Your task to perform on an android device: Clear the shopping cart on walmart.com. Add "usb-c" to the cart on walmart.com Image 0: 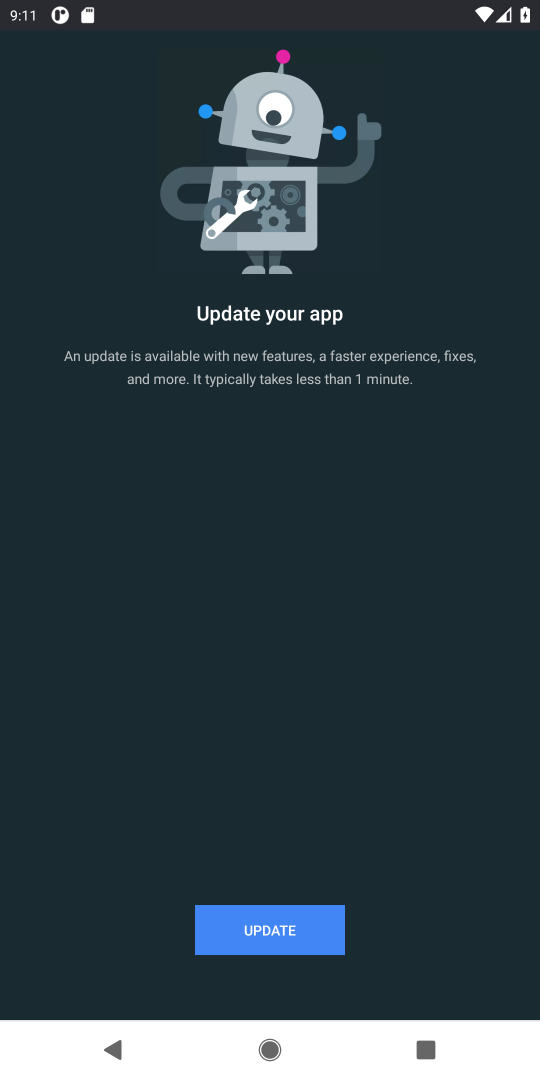
Step 0: press home button
Your task to perform on an android device: Clear the shopping cart on walmart.com. Add "usb-c" to the cart on walmart.com Image 1: 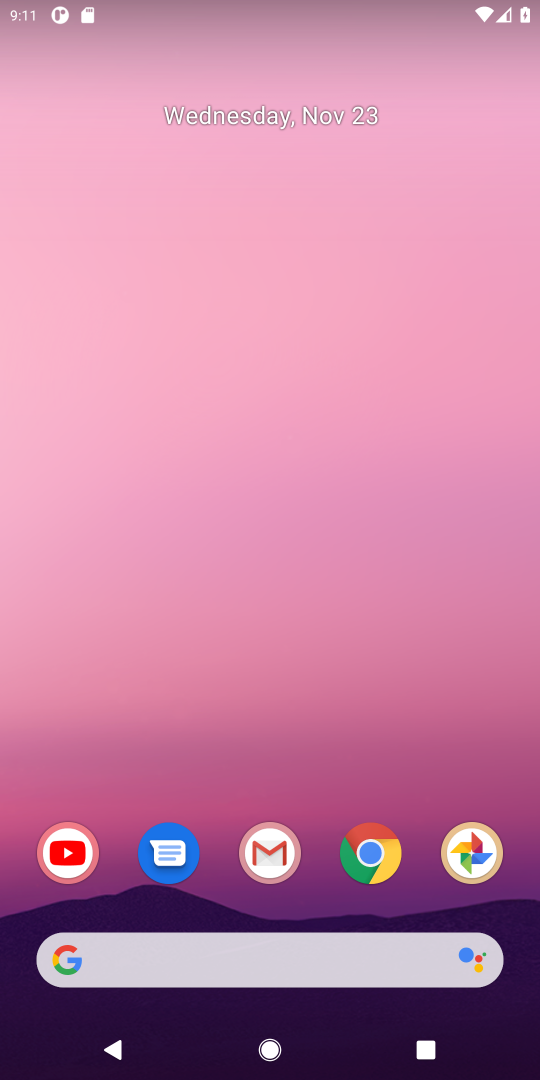
Step 1: click (377, 859)
Your task to perform on an android device: Clear the shopping cart on walmart.com. Add "usb-c" to the cart on walmart.com Image 2: 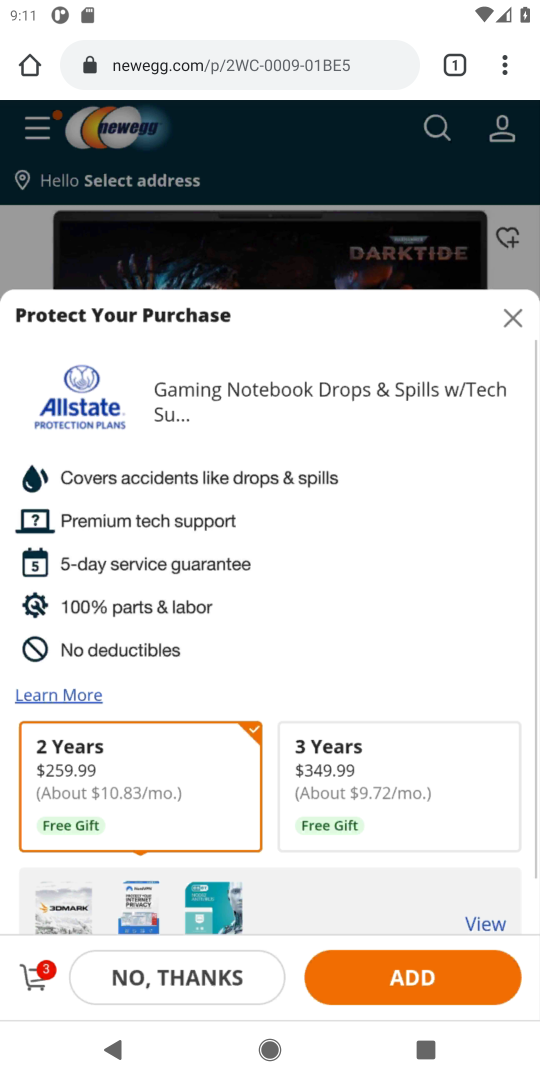
Step 2: click (212, 75)
Your task to perform on an android device: Clear the shopping cart on walmart.com. Add "usb-c" to the cart on walmart.com Image 3: 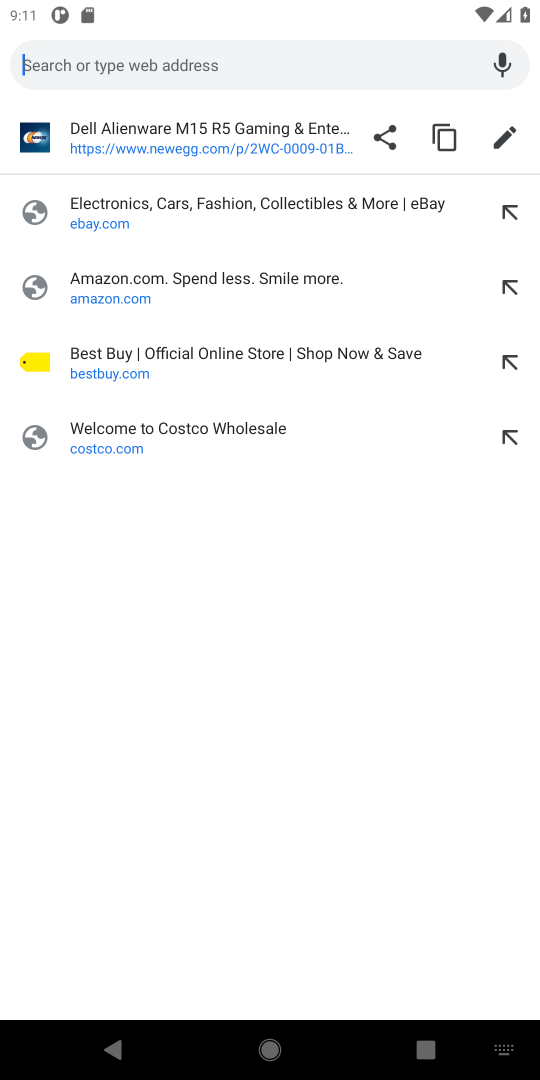
Step 3: type "walmart.com"
Your task to perform on an android device: Clear the shopping cart on walmart.com. Add "usb-c" to the cart on walmart.com Image 4: 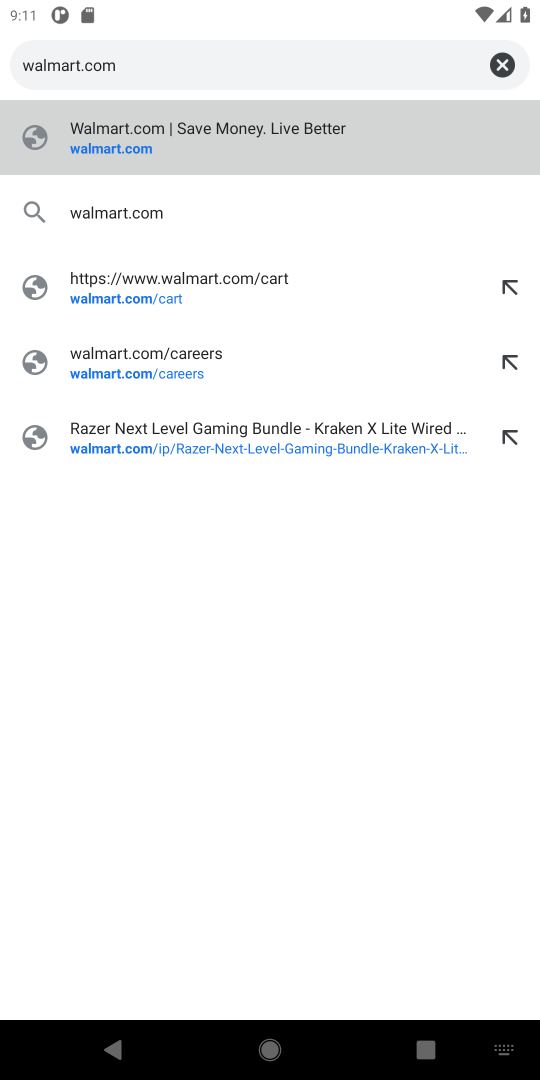
Step 4: click (90, 151)
Your task to perform on an android device: Clear the shopping cart on walmart.com. Add "usb-c" to the cart on walmart.com Image 5: 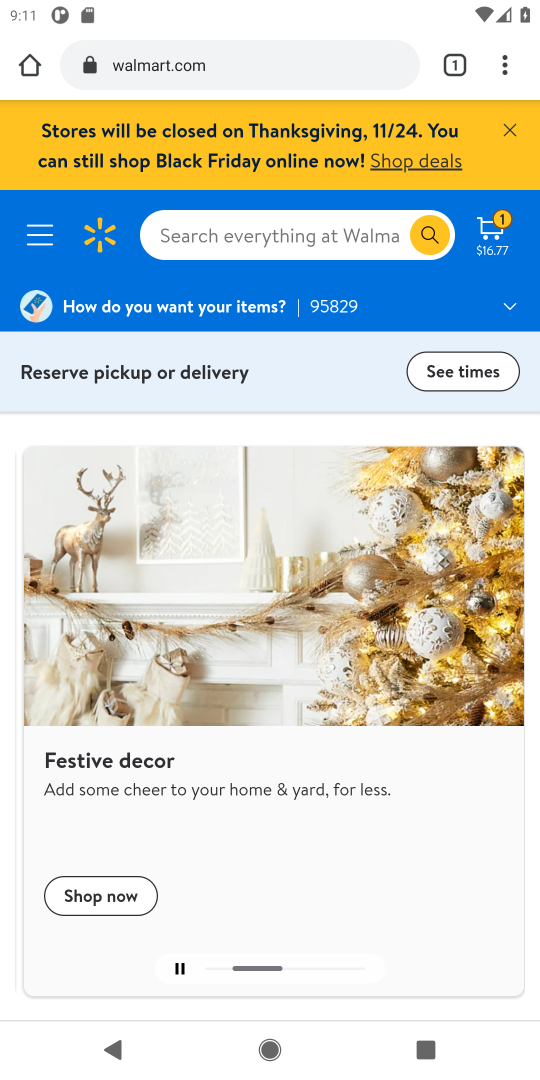
Step 5: click (498, 257)
Your task to perform on an android device: Clear the shopping cart on walmart.com. Add "usb-c" to the cart on walmart.com Image 6: 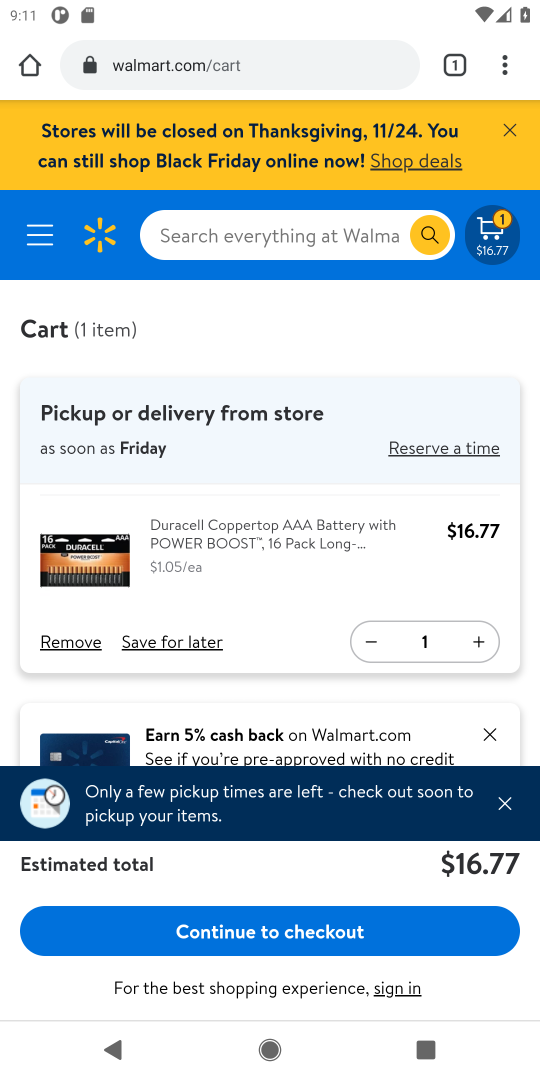
Step 6: drag from (319, 638) to (298, 470)
Your task to perform on an android device: Clear the shopping cart on walmart.com. Add "usb-c" to the cart on walmart.com Image 7: 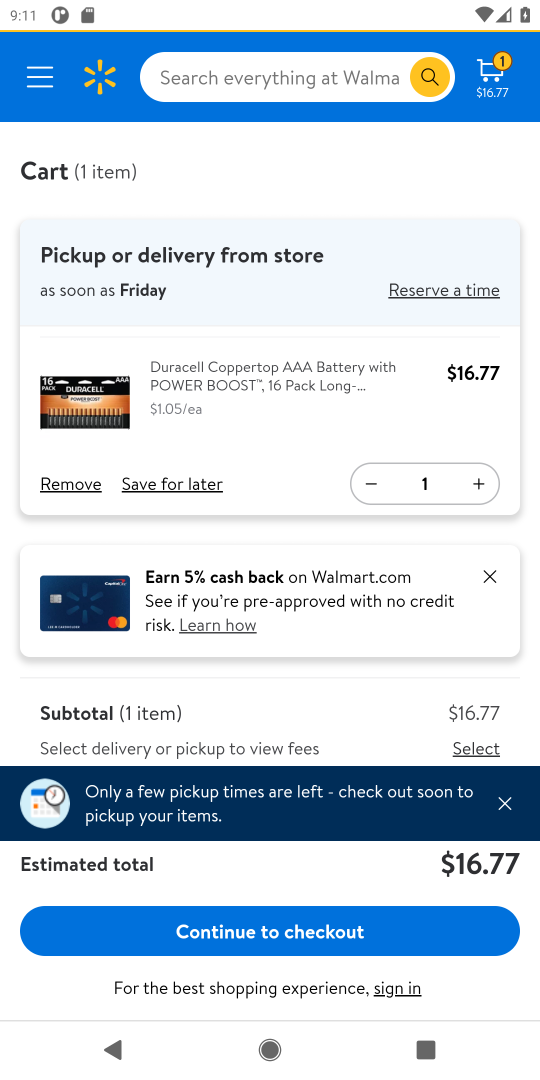
Step 7: click (63, 485)
Your task to perform on an android device: Clear the shopping cart on walmart.com. Add "usb-c" to the cart on walmart.com Image 8: 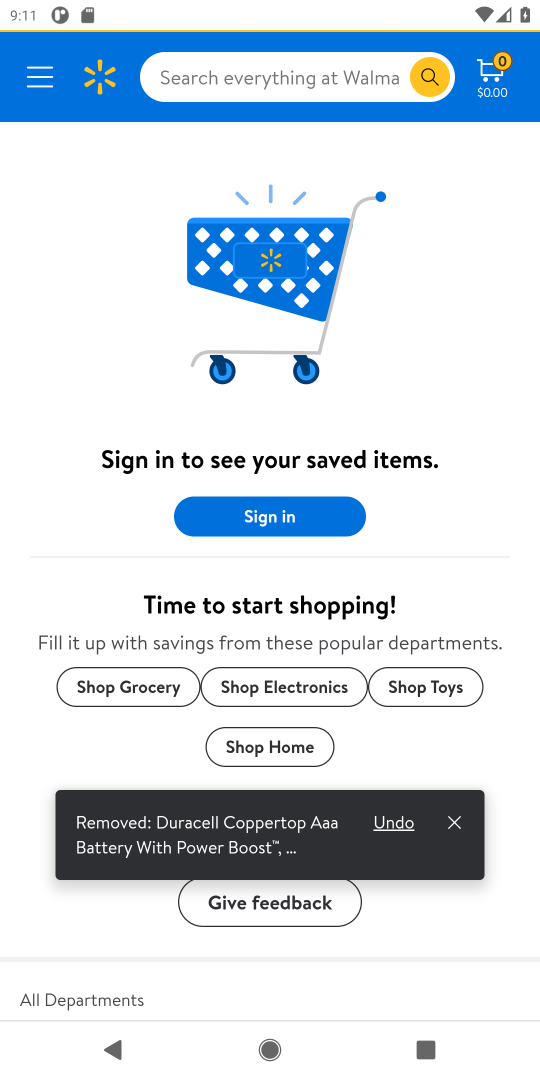
Step 8: drag from (423, 372) to (428, 551)
Your task to perform on an android device: Clear the shopping cart on walmart.com. Add "usb-c" to the cart on walmart.com Image 9: 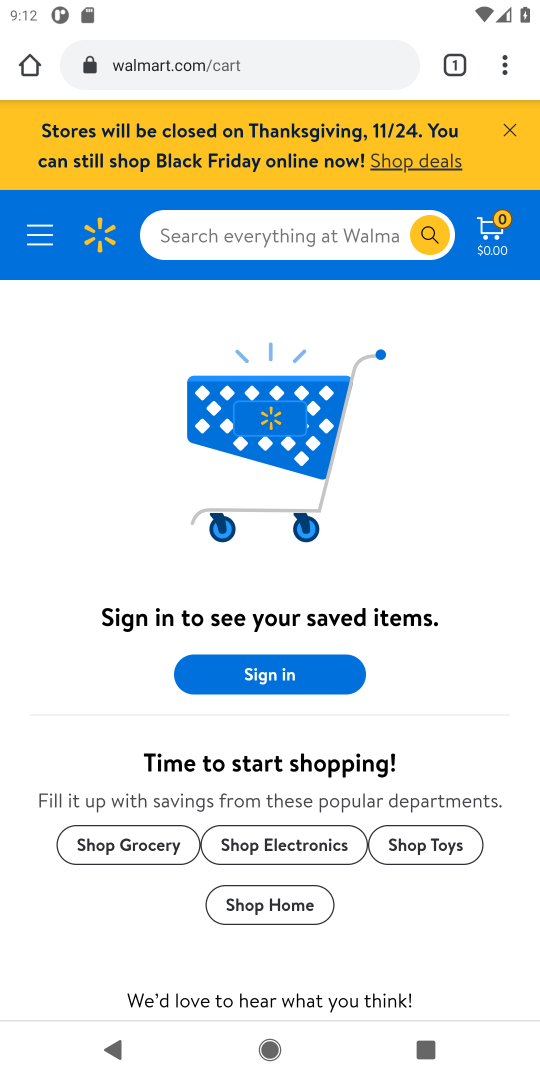
Step 9: click (218, 243)
Your task to perform on an android device: Clear the shopping cart on walmart.com. Add "usb-c" to the cart on walmart.com Image 10: 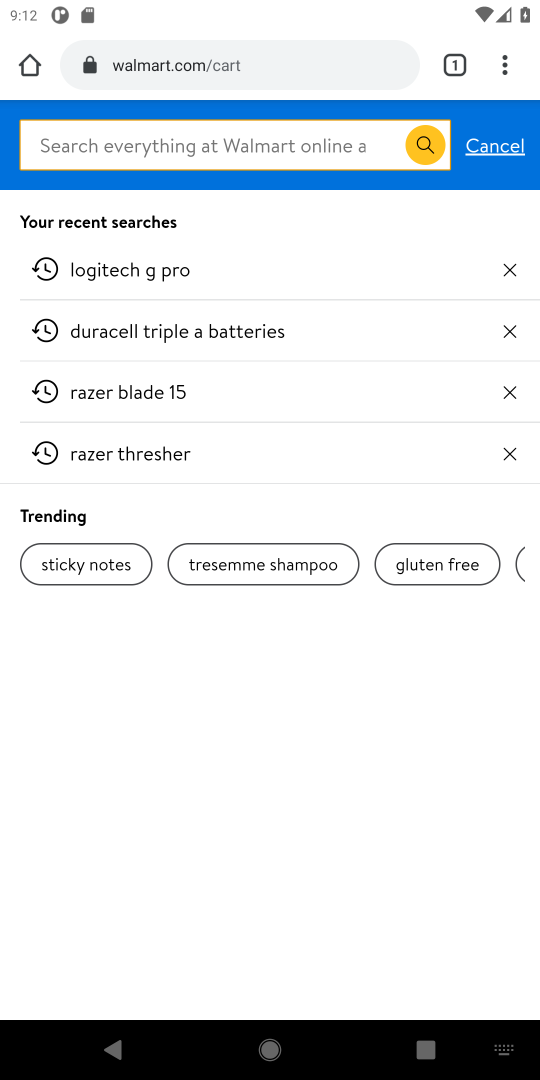
Step 10: type "usb-c"
Your task to perform on an android device: Clear the shopping cart on walmart.com. Add "usb-c" to the cart on walmart.com Image 11: 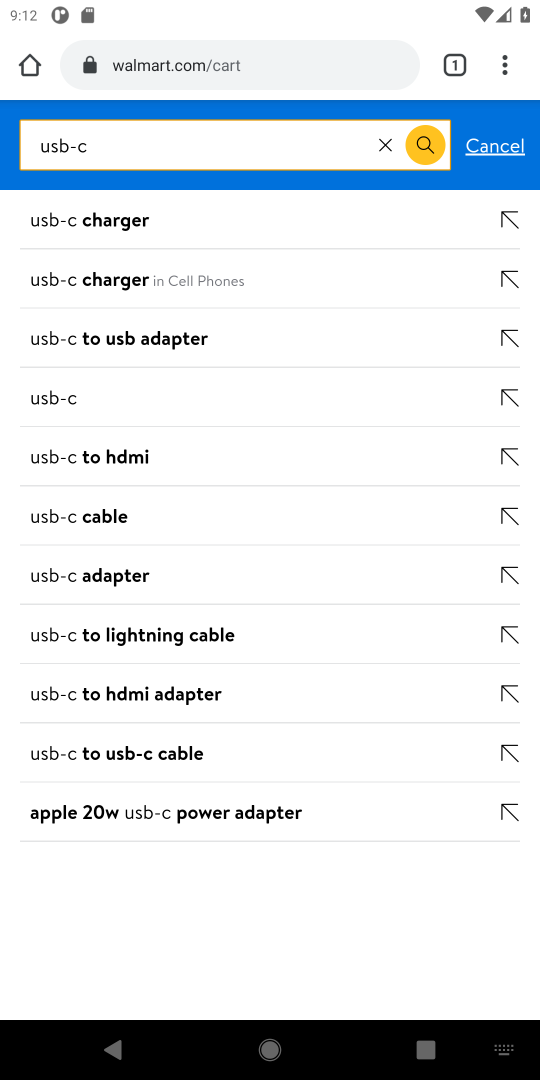
Step 11: click (71, 220)
Your task to perform on an android device: Clear the shopping cart on walmart.com. Add "usb-c" to the cart on walmart.com Image 12: 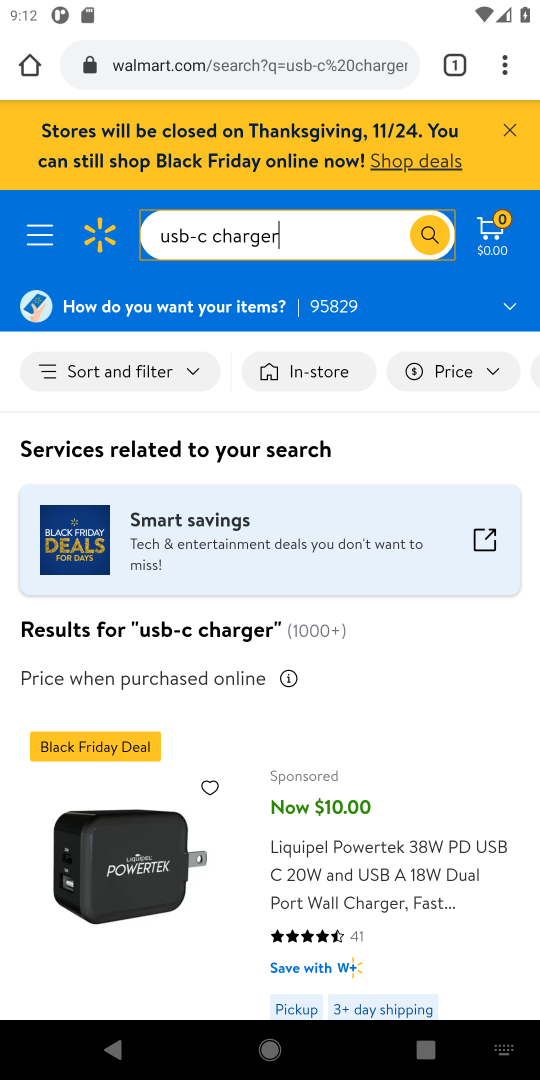
Step 12: drag from (238, 689) to (219, 480)
Your task to perform on an android device: Clear the shopping cart on walmart.com. Add "usb-c" to the cart on walmart.com Image 13: 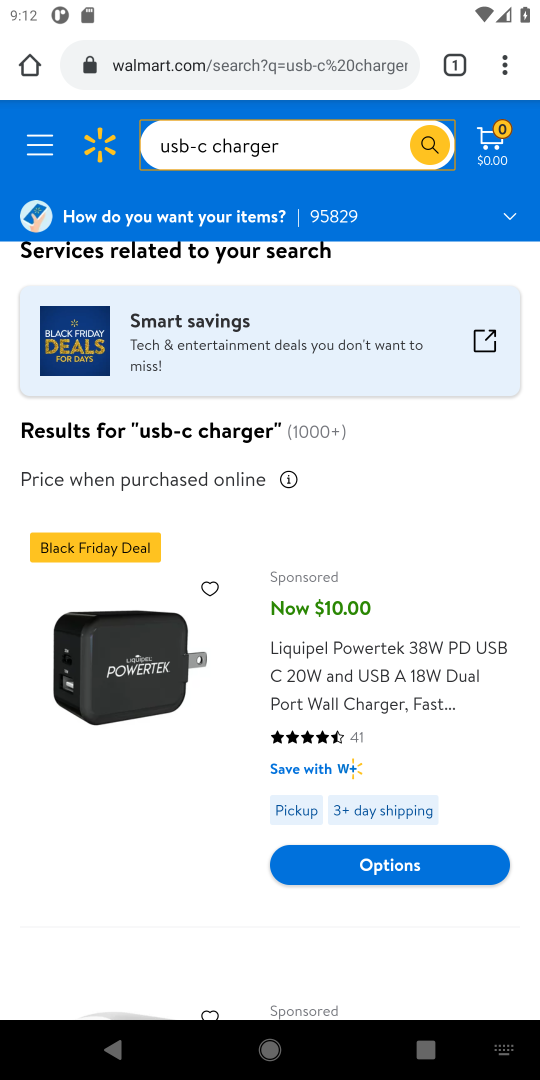
Step 13: drag from (214, 710) to (201, 582)
Your task to perform on an android device: Clear the shopping cart on walmart.com. Add "usb-c" to the cart on walmart.com Image 14: 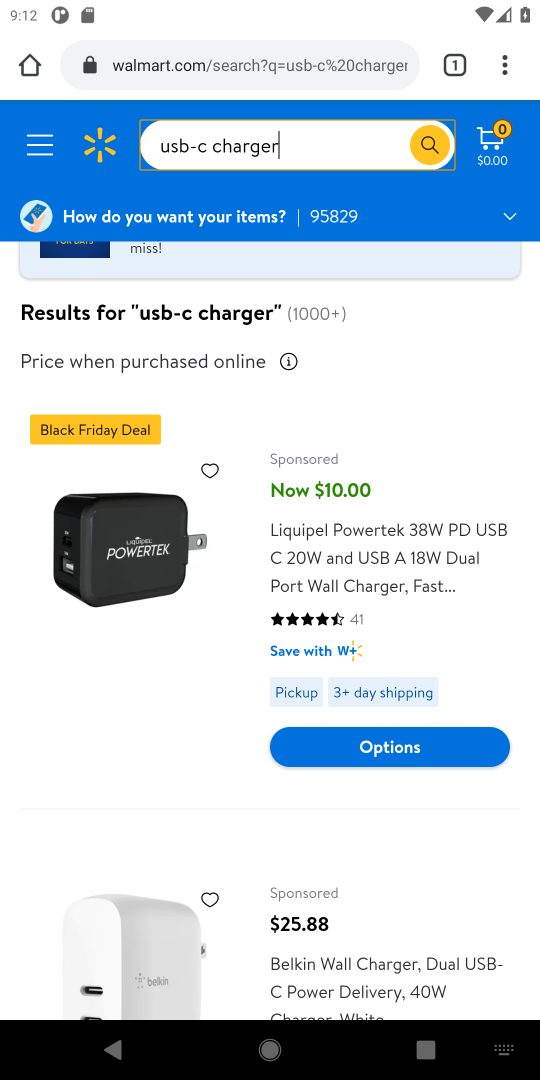
Step 14: click (123, 555)
Your task to perform on an android device: Clear the shopping cart on walmart.com. Add "usb-c" to the cart on walmart.com Image 15: 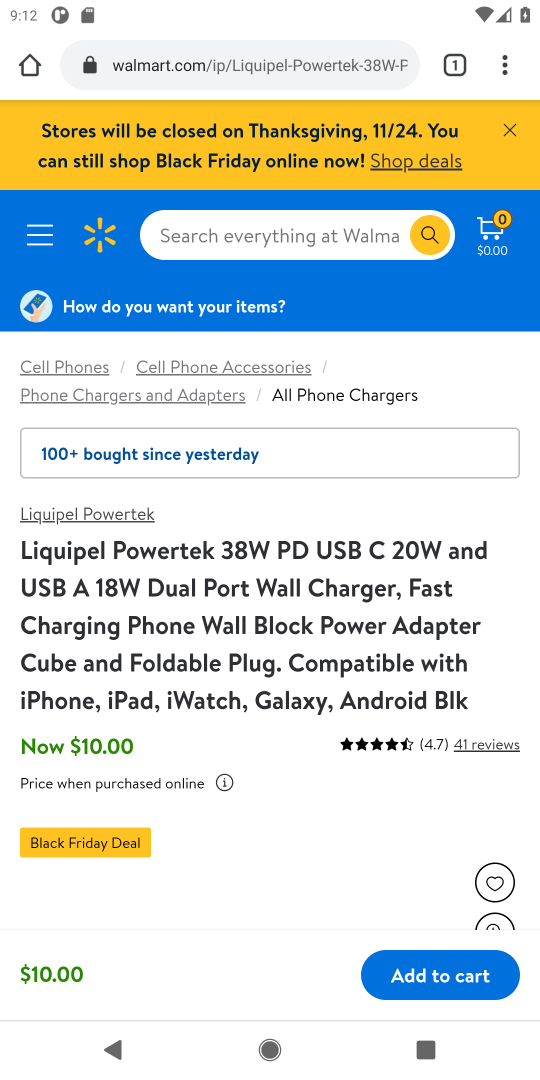
Step 15: drag from (218, 780) to (204, 461)
Your task to perform on an android device: Clear the shopping cart on walmart.com. Add "usb-c" to the cart on walmart.com Image 16: 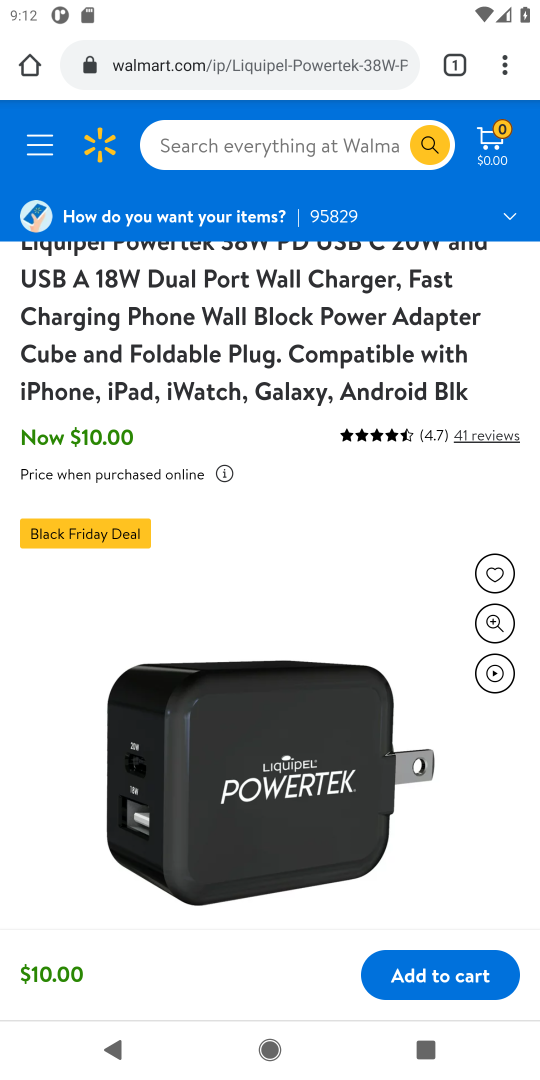
Step 16: drag from (235, 770) to (211, 566)
Your task to perform on an android device: Clear the shopping cart on walmart.com. Add "usb-c" to the cart on walmart.com Image 17: 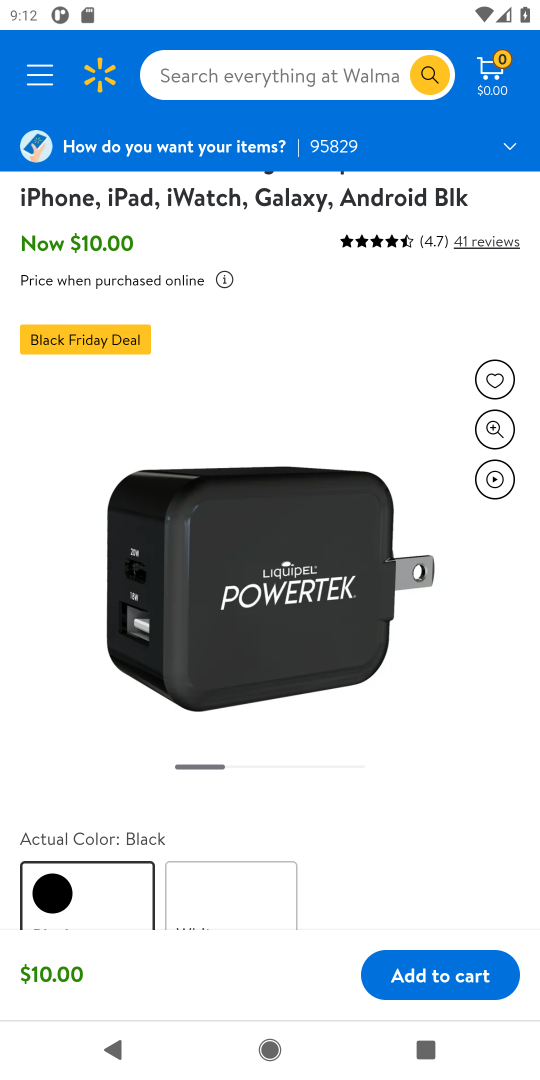
Step 17: click (448, 985)
Your task to perform on an android device: Clear the shopping cart on walmart.com. Add "usb-c" to the cart on walmart.com Image 18: 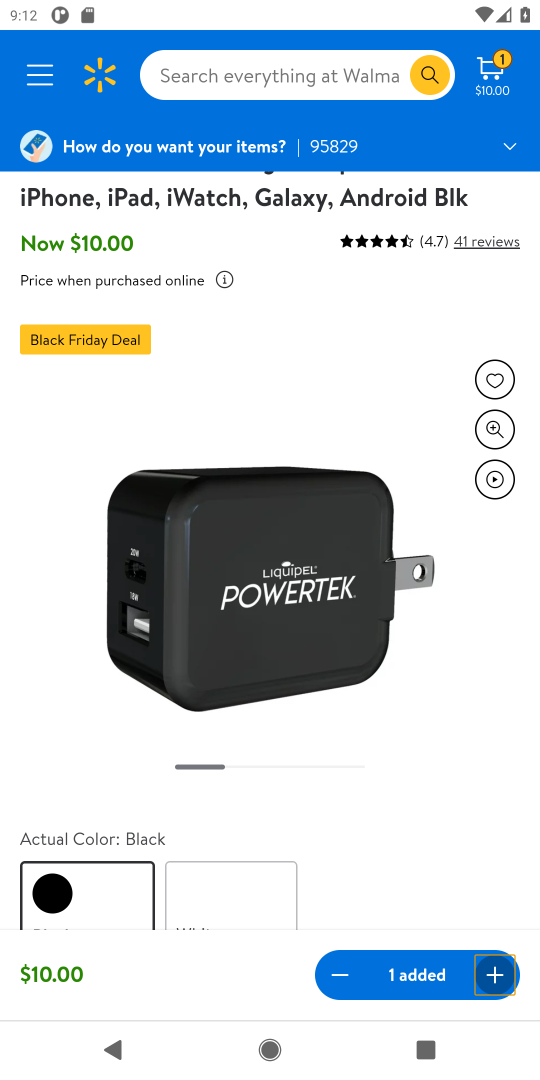
Step 18: task complete